Your task to perform on an android device: set an alarm Image 0: 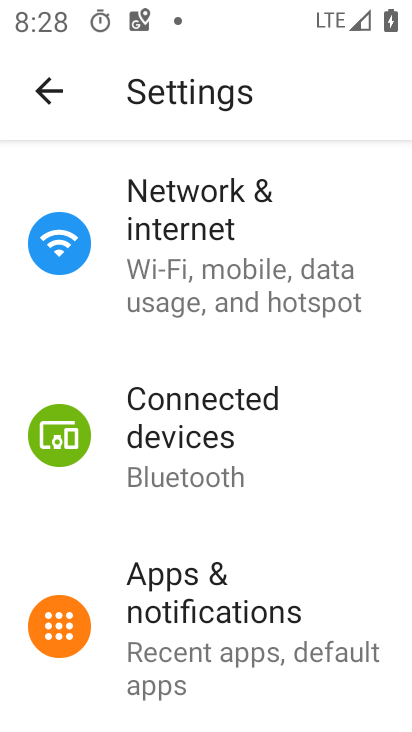
Step 0: press home button
Your task to perform on an android device: set an alarm Image 1: 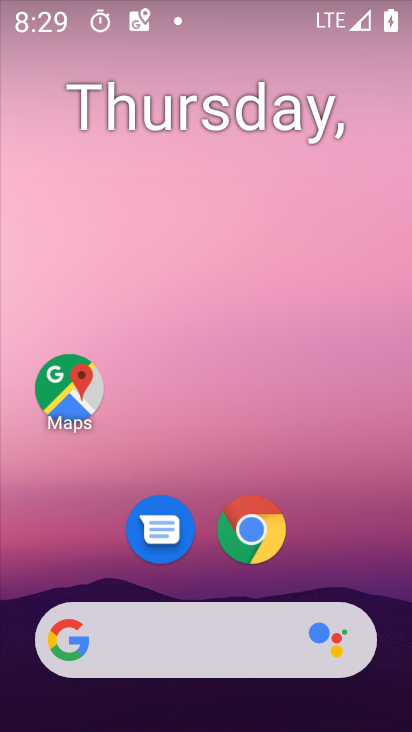
Step 1: drag from (372, 565) to (390, 184)
Your task to perform on an android device: set an alarm Image 2: 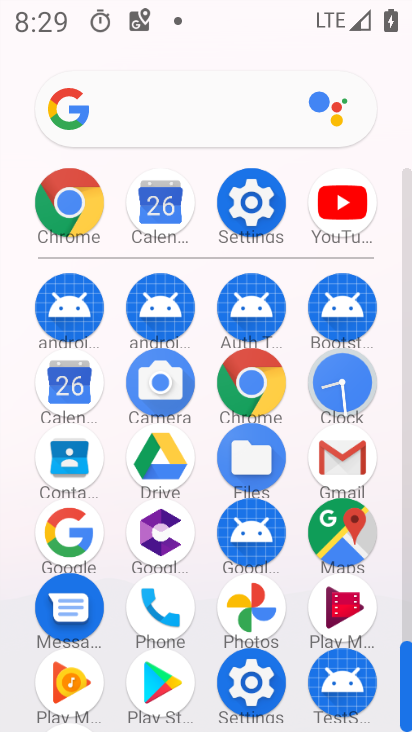
Step 2: click (356, 385)
Your task to perform on an android device: set an alarm Image 3: 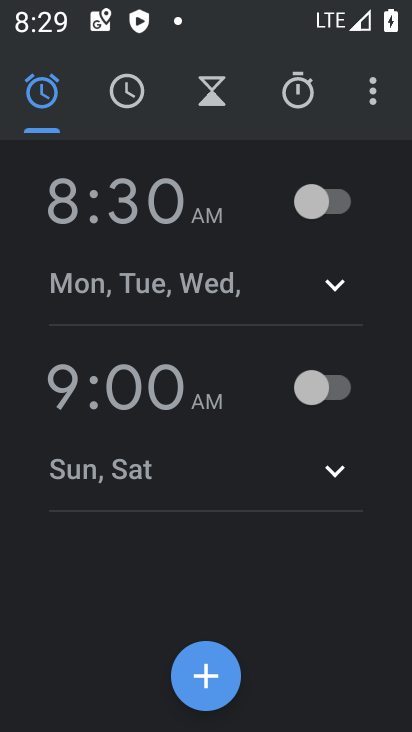
Step 3: click (218, 662)
Your task to perform on an android device: set an alarm Image 4: 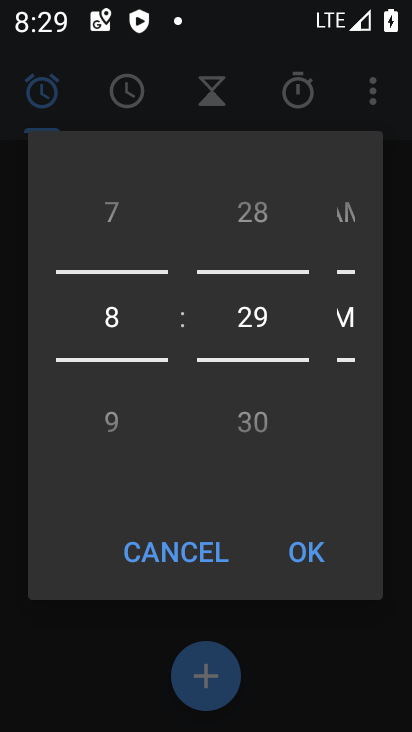
Step 4: click (303, 565)
Your task to perform on an android device: set an alarm Image 5: 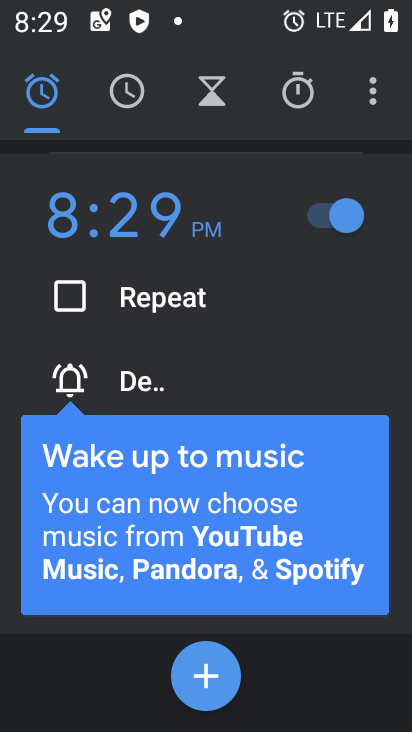
Step 5: task complete